Your task to perform on an android device: set the stopwatch Image 0: 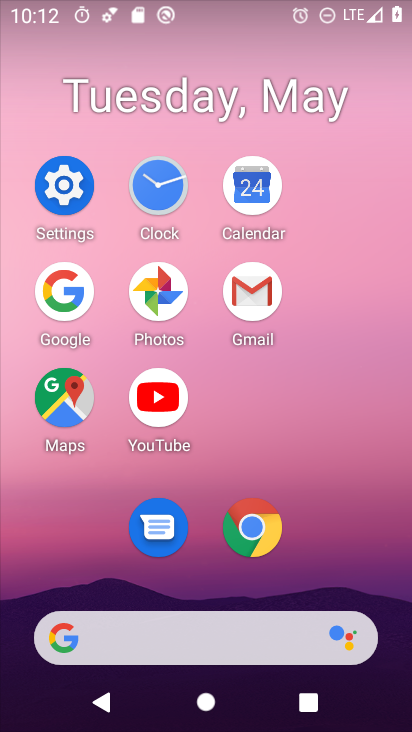
Step 0: click (157, 202)
Your task to perform on an android device: set the stopwatch Image 1: 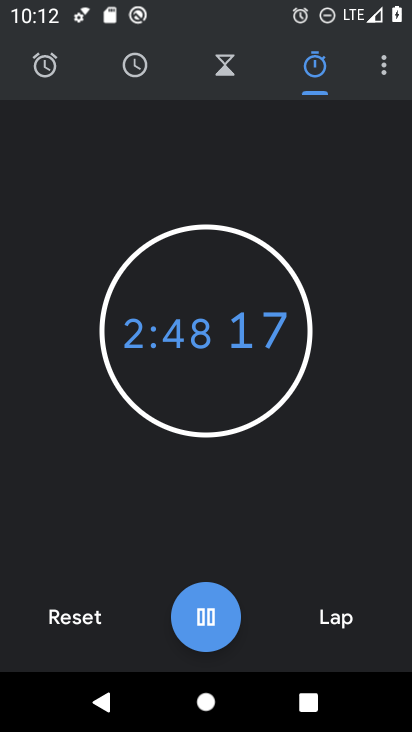
Step 1: click (67, 612)
Your task to perform on an android device: set the stopwatch Image 2: 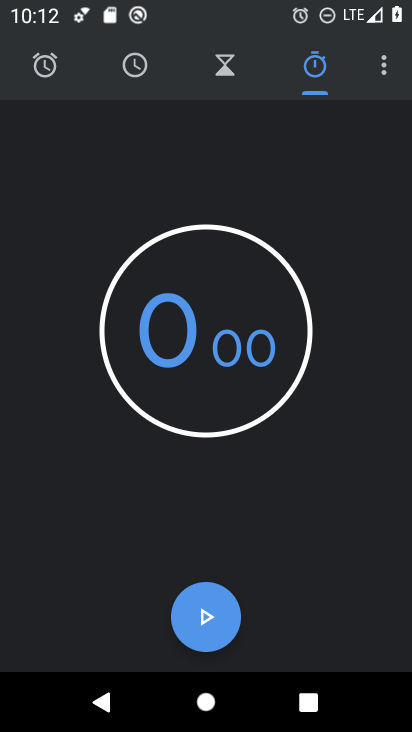
Step 2: click (231, 613)
Your task to perform on an android device: set the stopwatch Image 3: 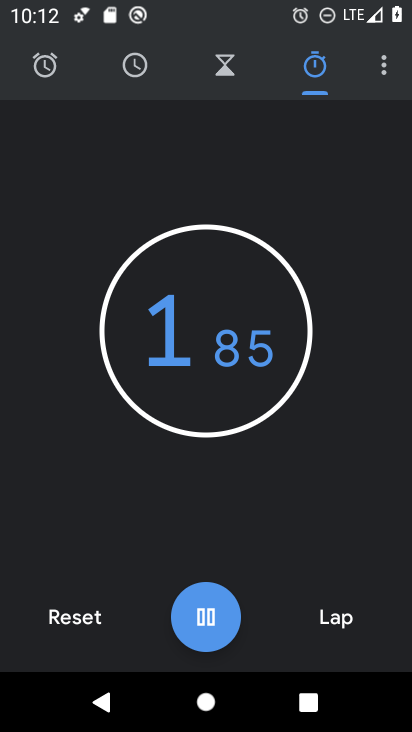
Step 3: task complete